Your task to perform on an android device: all mails in gmail Image 0: 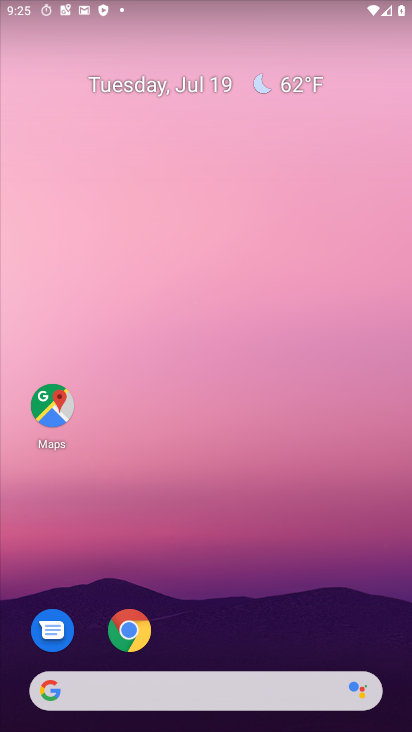
Step 0: drag from (49, 690) to (161, 220)
Your task to perform on an android device: all mails in gmail Image 1: 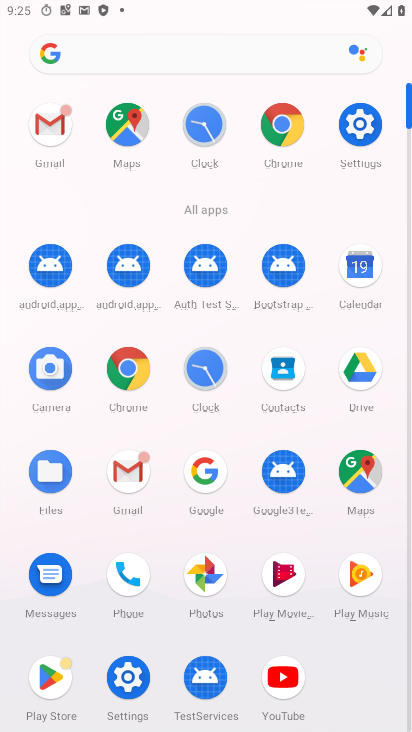
Step 1: click (145, 474)
Your task to perform on an android device: all mails in gmail Image 2: 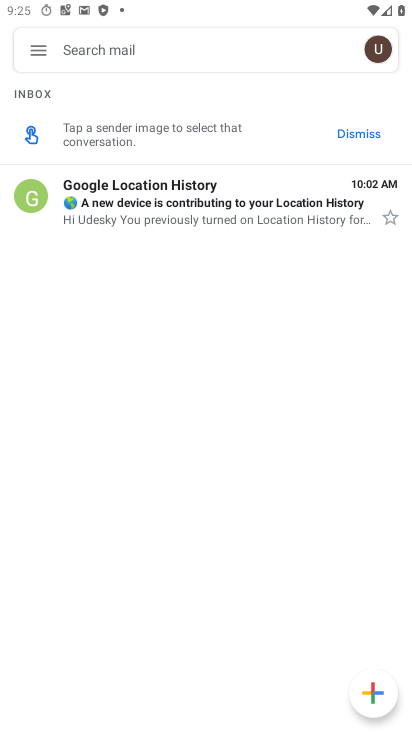
Step 2: click (39, 41)
Your task to perform on an android device: all mails in gmail Image 3: 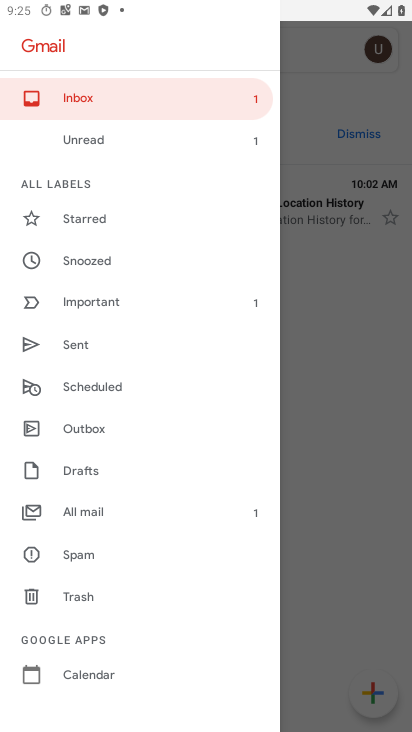
Step 3: click (75, 515)
Your task to perform on an android device: all mails in gmail Image 4: 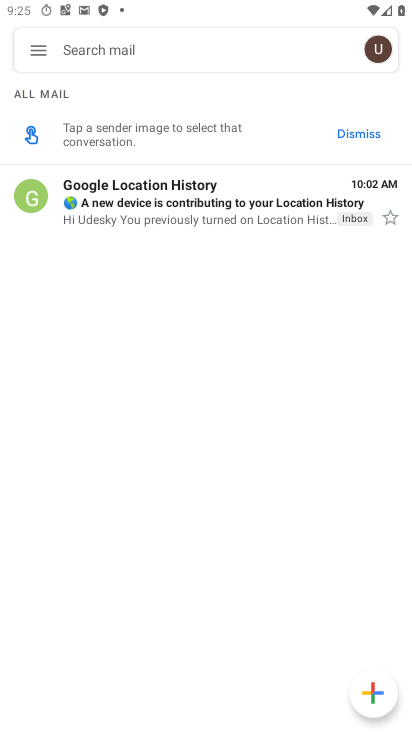
Step 4: task complete